Your task to perform on an android device: Open Google Maps Image 0: 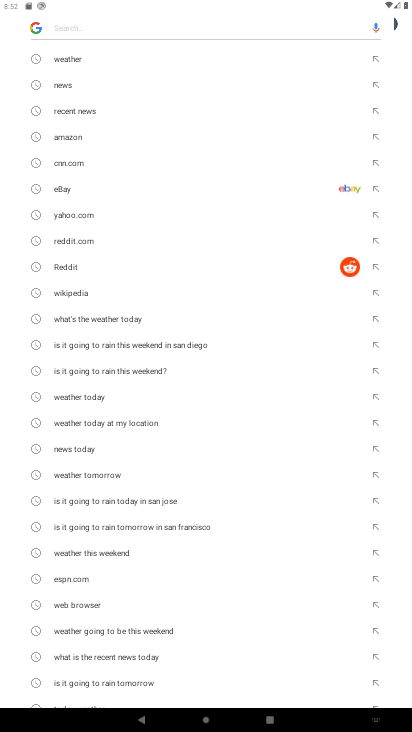
Step 0: press home button
Your task to perform on an android device: Open Google Maps Image 1: 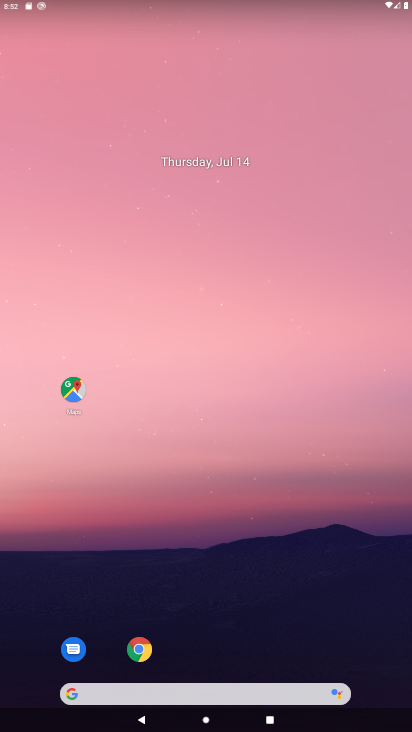
Step 1: click (73, 393)
Your task to perform on an android device: Open Google Maps Image 2: 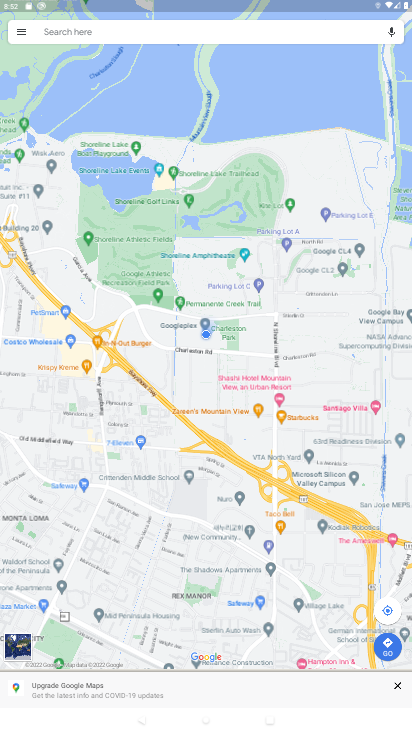
Step 2: task complete